Your task to perform on an android device: Open settings on Google Maps Image 0: 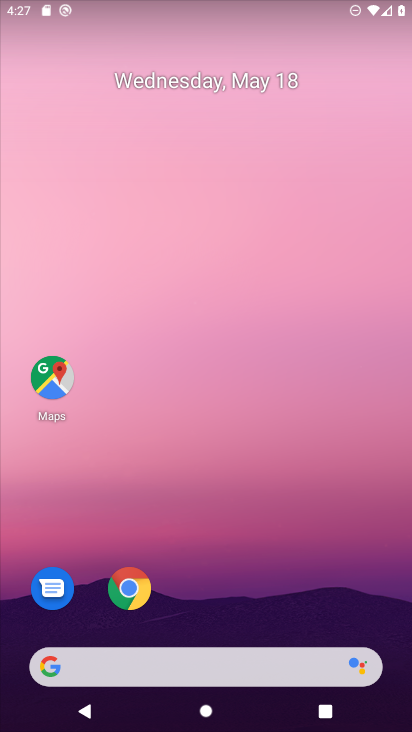
Step 0: click (50, 367)
Your task to perform on an android device: Open settings on Google Maps Image 1: 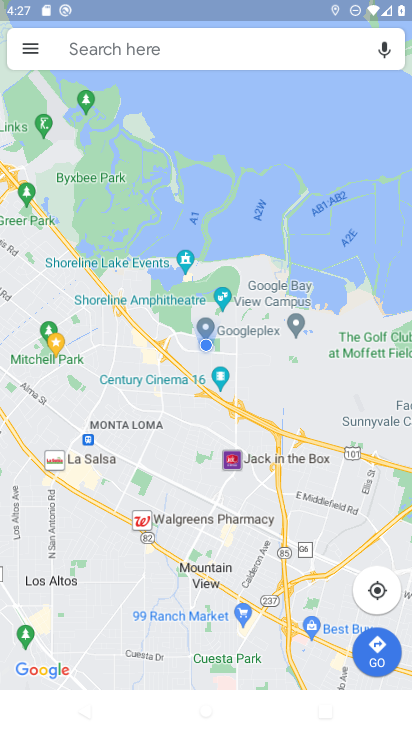
Step 1: click (245, 56)
Your task to perform on an android device: Open settings on Google Maps Image 2: 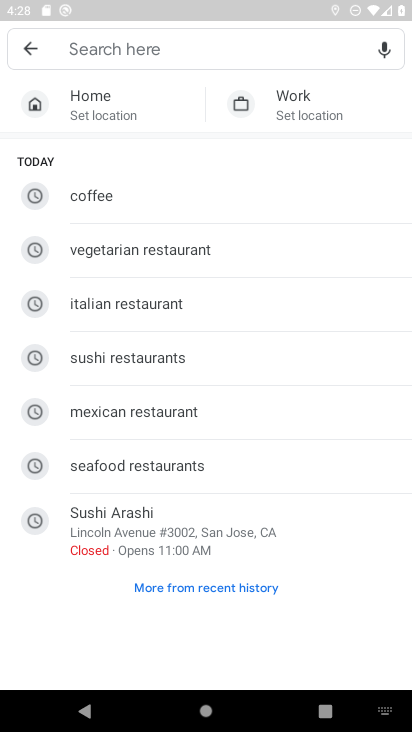
Step 2: click (27, 48)
Your task to perform on an android device: Open settings on Google Maps Image 3: 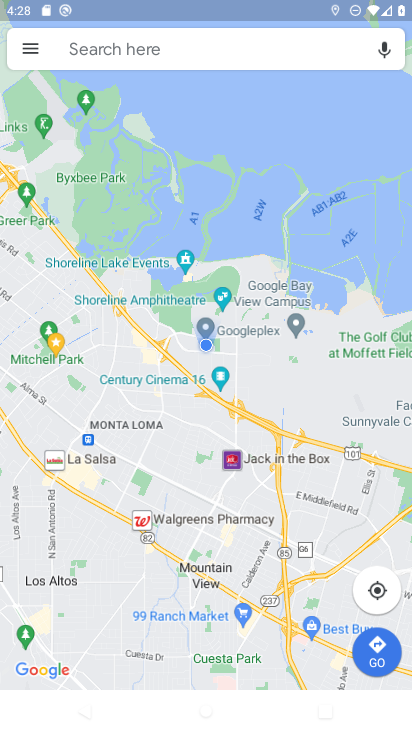
Step 3: click (27, 48)
Your task to perform on an android device: Open settings on Google Maps Image 4: 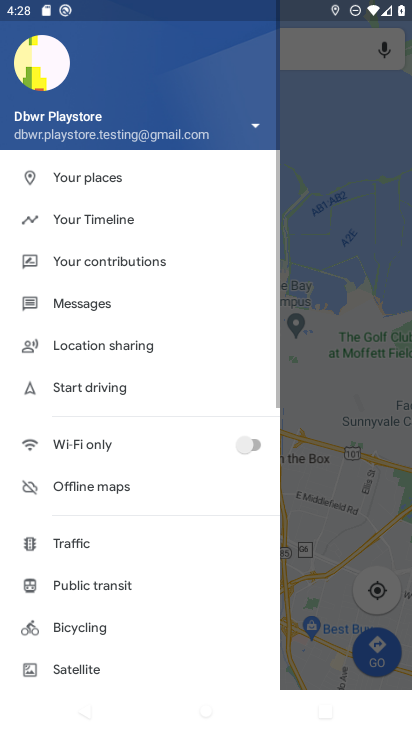
Step 4: drag from (98, 650) to (131, 375)
Your task to perform on an android device: Open settings on Google Maps Image 5: 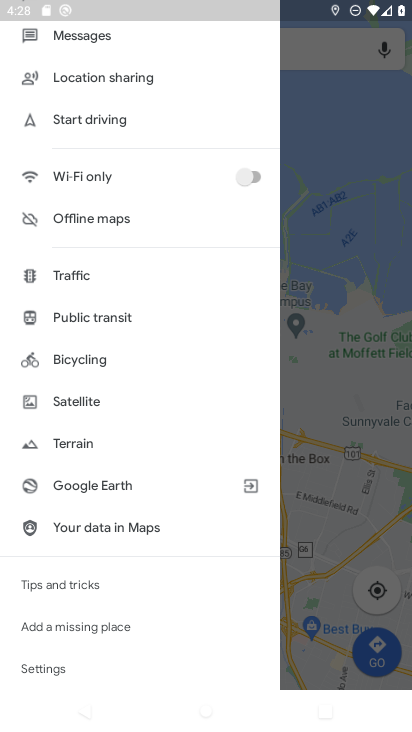
Step 5: click (104, 666)
Your task to perform on an android device: Open settings on Google Maps Image 6: 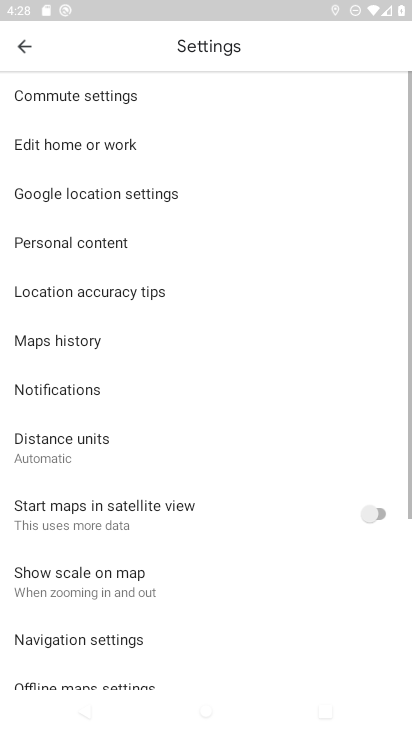
Step 6: task complete